Your task to perform on an android device: add a label to a message in the gmail app Image 0: 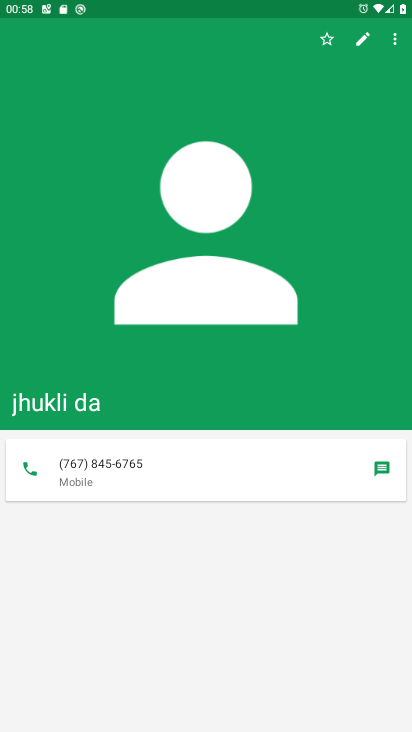
Step 0: press home button
Your task to perform on an android device: add a label to a message in the gmail app Image 1: 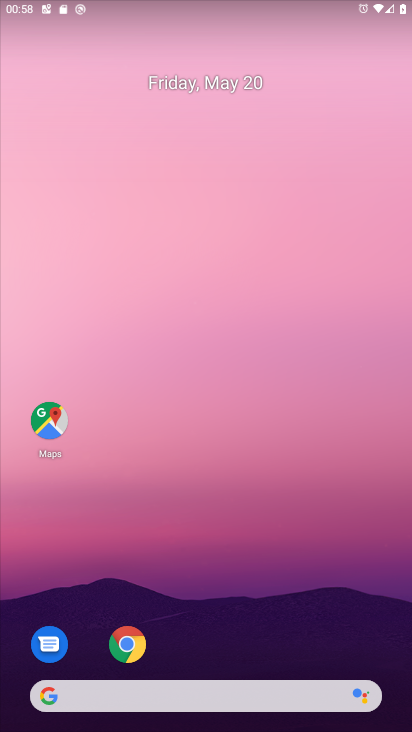
Step 1: drag from (187, 678) to (213, 419)
Your task to perform on an android device: add a label to a message in the gmail app Image 2: 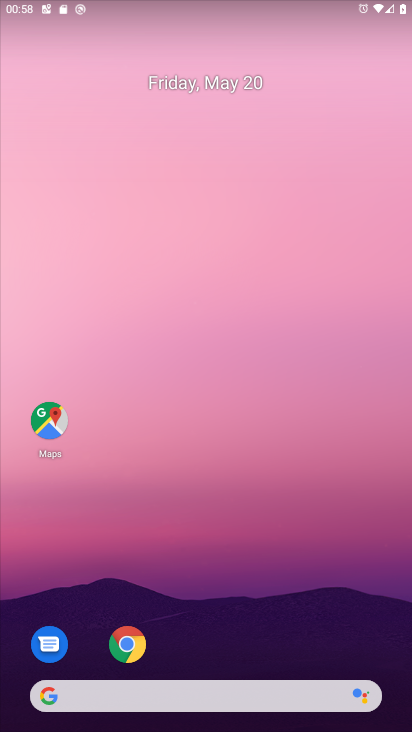
Step 2: drag from (218, 680) to (218, 368)
Your task to perform on an android device: add a label to a message in the gmail app Image 3: 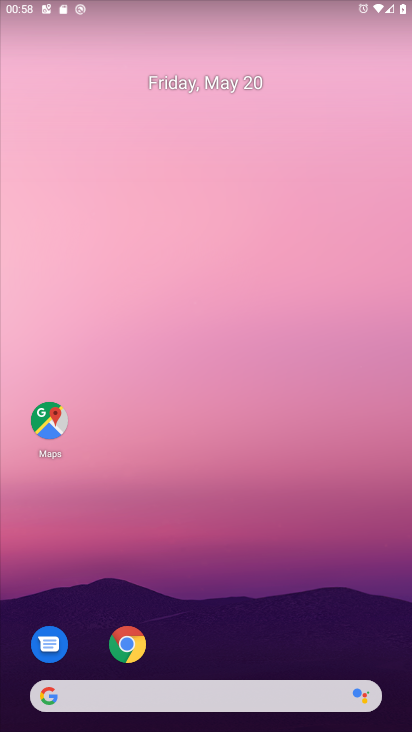
Step 3: drag from (210, 676) to (229, 330)
Your task to perform on an android device: add a label to a message in the gmail app Image 4: 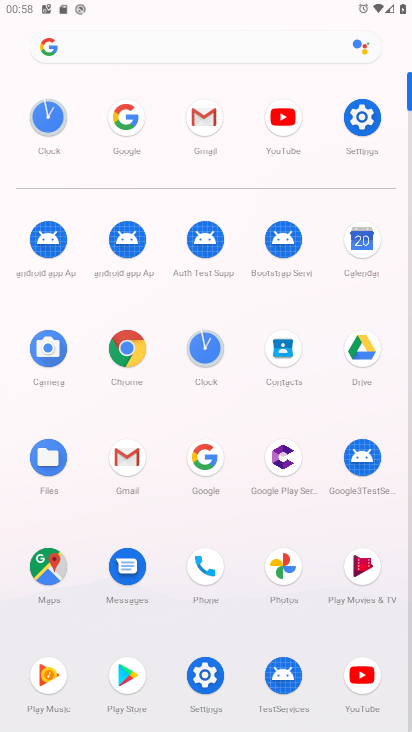
Step 4: click (121, 453)
Your task to perform on an android device: add a label to a message in the gmail app Image 5: 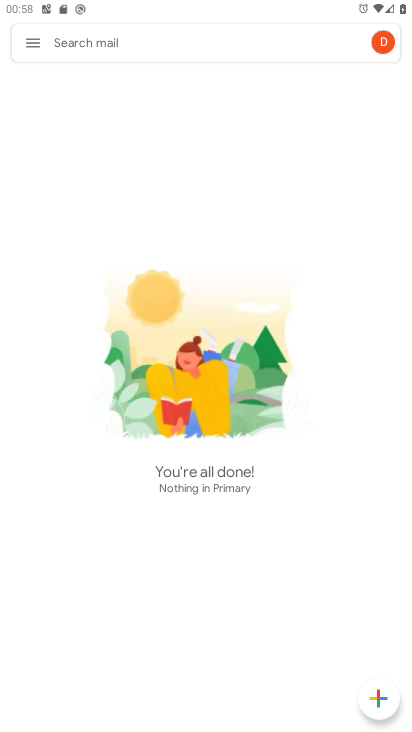
Step 5: task complete